Your task to perform on an android device: turn notification dots off Image 0: 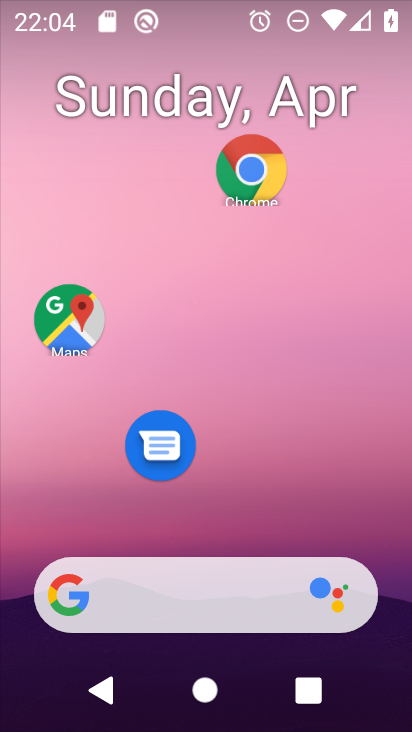
Step 0: drag from (270, 496) to (293, 71)
Your task to perform on an android device: turn notification dots off Image 1: 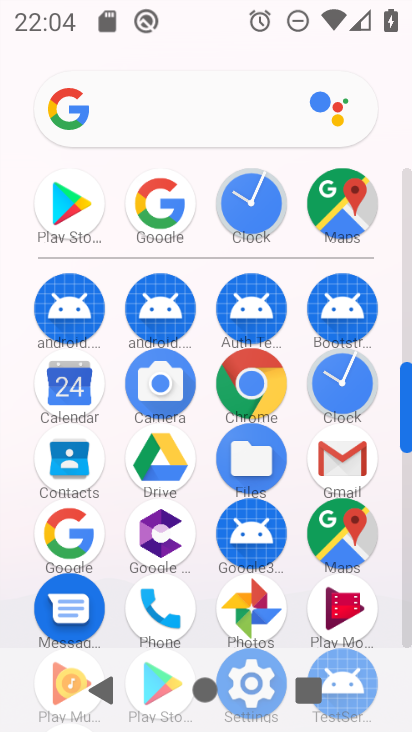
Step 1: drag from (203, 630) to (209, 354)
Your task to perform on an android device: turn notification dots off Image 2: 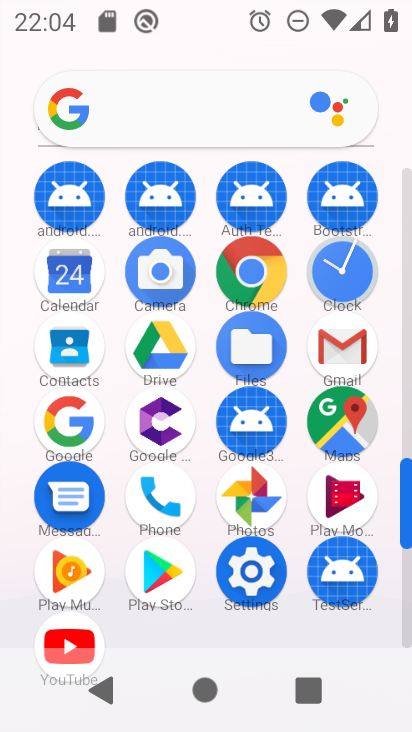
Step 2: click (260, 572)
Your task to perform on an android device: turn notification dots off Image 3: 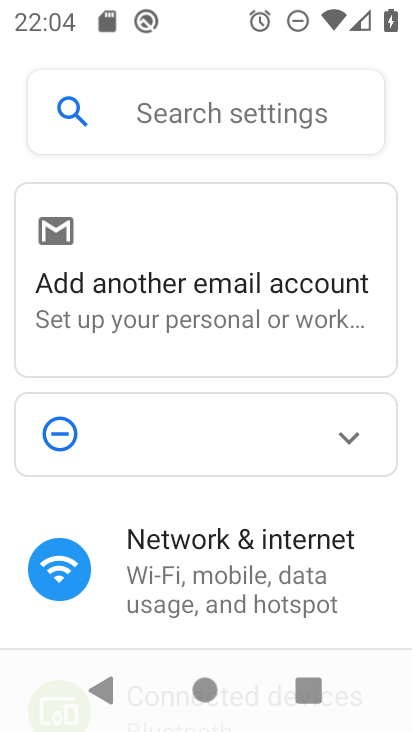
Step 3: drag from (247, 550) to (249, 218)
Your task to perform on an android device: turn notification dots off Image 4: 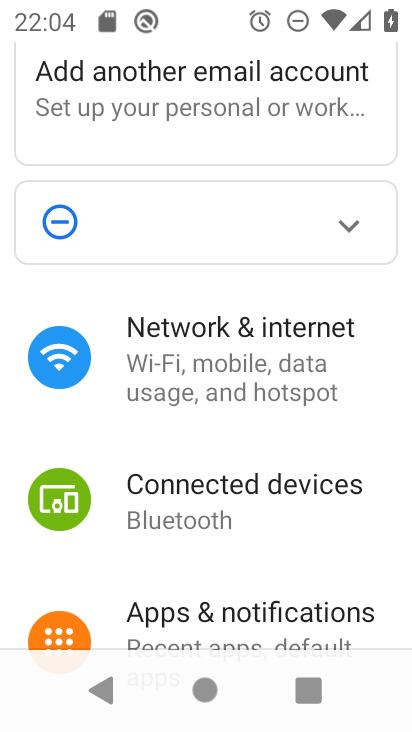
Step 4: drag from (277, 549) to (287, 341)
Your task to perform on an android device: turn notification dots off Image 5: 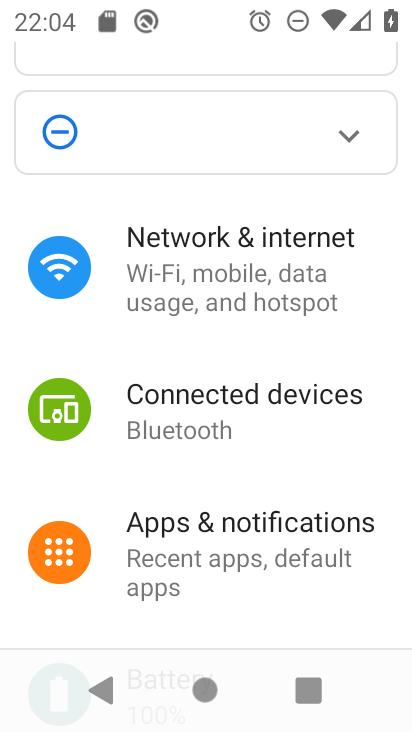
Step 5: click (240, 543)
Your task to perform on an android device: turn notification dots off Image 6: 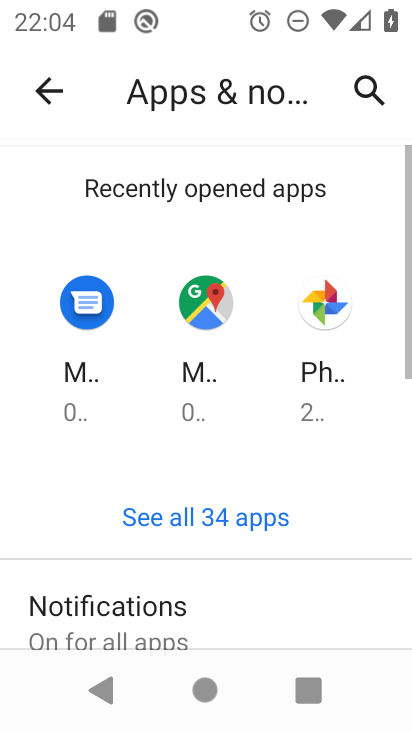
Step 6: click (163, 612)
Your task to perform on an android device: turn notification dots off Image 7: 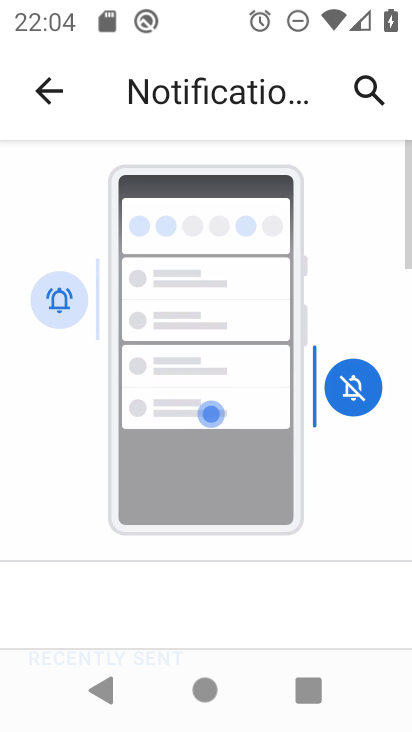
Step 7: drag from (288, 563) to (288, 69)
Your task to perform on an android device: turn notification dots off Image 8: 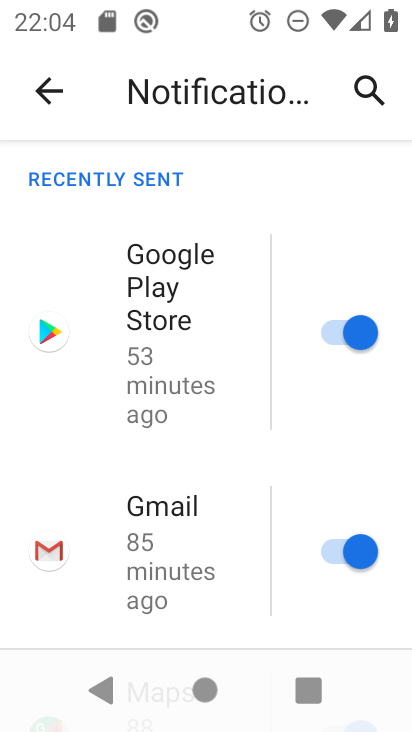
Step 8: drag from (225, 585) to (208, 80)
Your task to perform on an android device: turn notification dots off Image 9: 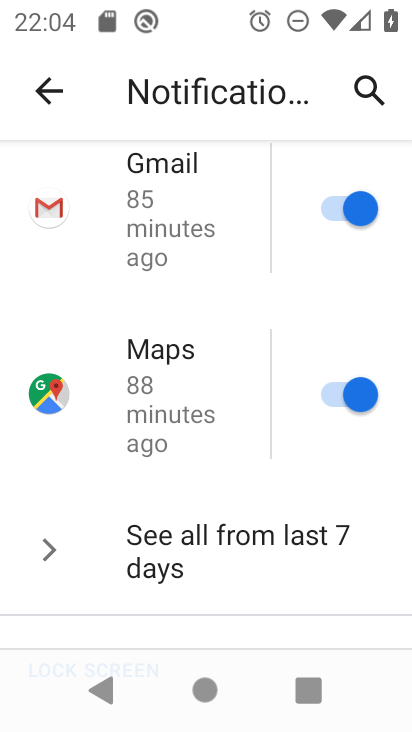
Step 9: drag from (196, 506) to (228, 205)
Your task to perform on an android device: turn notification dots off Image 10: 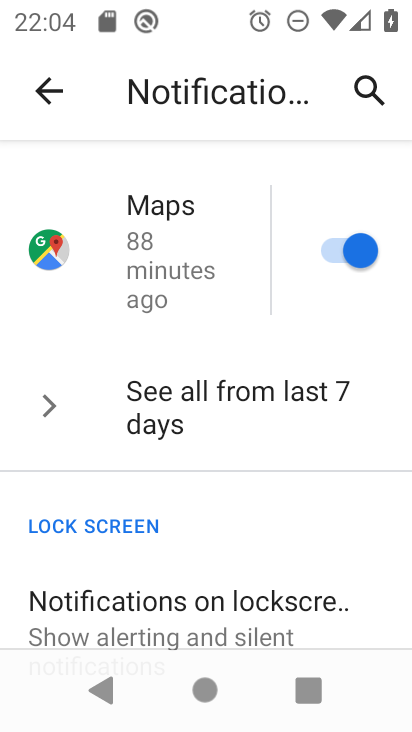
Step 10: drag from (208, 486) to (211, 114)
Your task to perform on an android device: turn notification dots off Image 11: 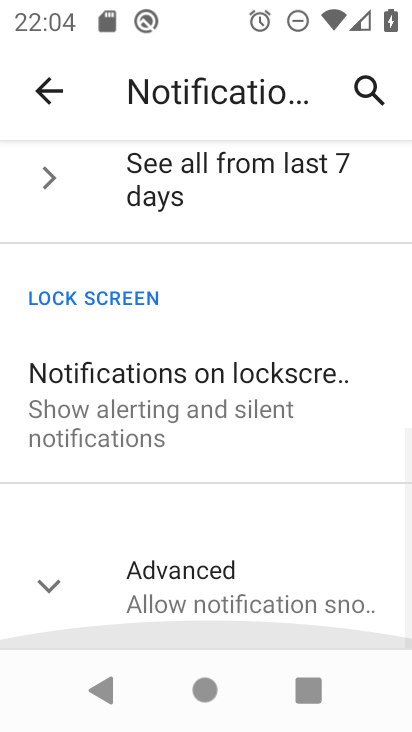
Step 11: click (121, 579)
Your task to perform on an android device: turn notification dots off Image 12: 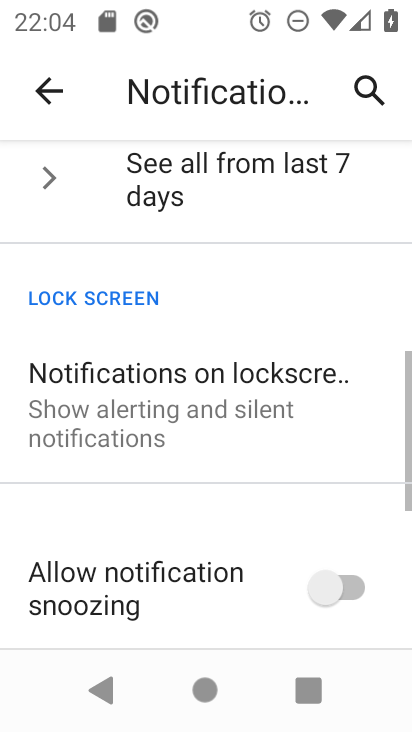
Step 12: drag from (267, 535) to (276, 116)
Your task to perform on an android device: turn notification dots off Image 13: 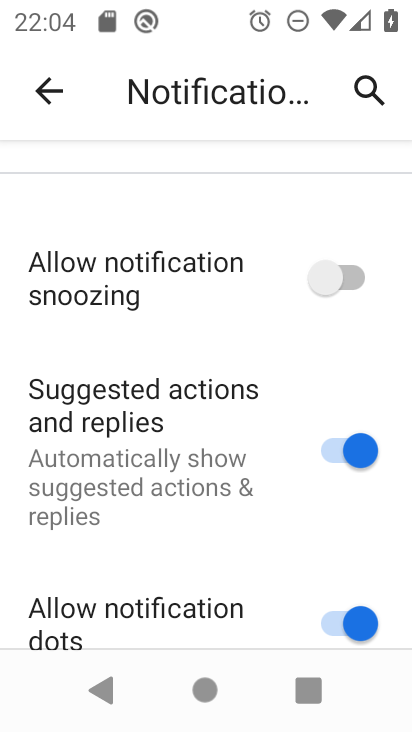
Step 13: drag from (258, 580) to (271, 319)
Your task to perform on an android device: turn notification dots off Image 14: 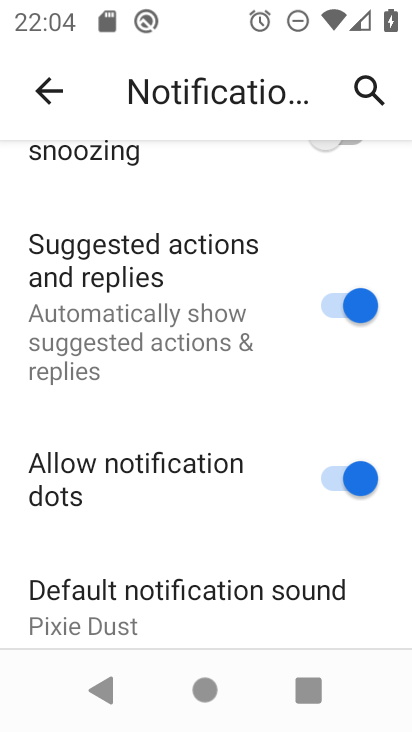
Step 14: click (346, 478)
Your task to perform on an android device: turn notification dots off Image 15: 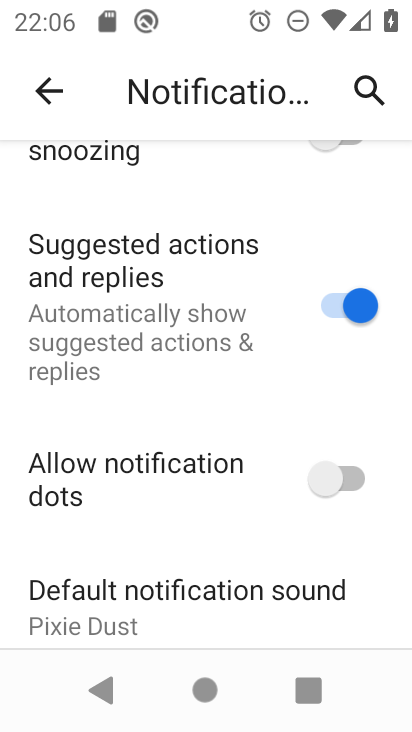
Step 15: task complete